Your task to perform on an android device: search for starred emails in the gmail app Image 0: 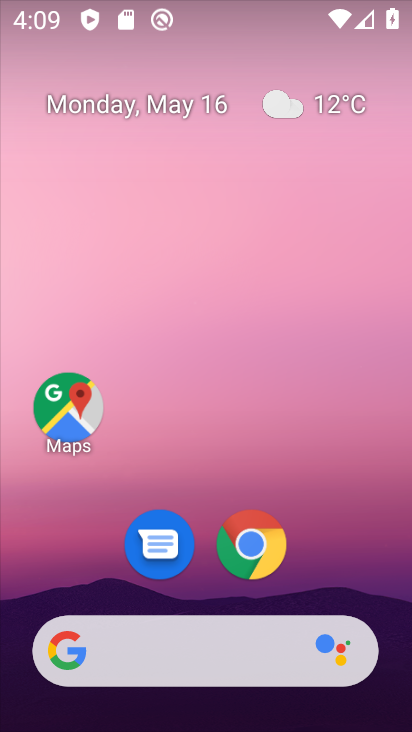
Step 0: drag from (333, 561) to (203, 28)
Your task to perform on an android device: search for starred emails in the gmail app Image 1: 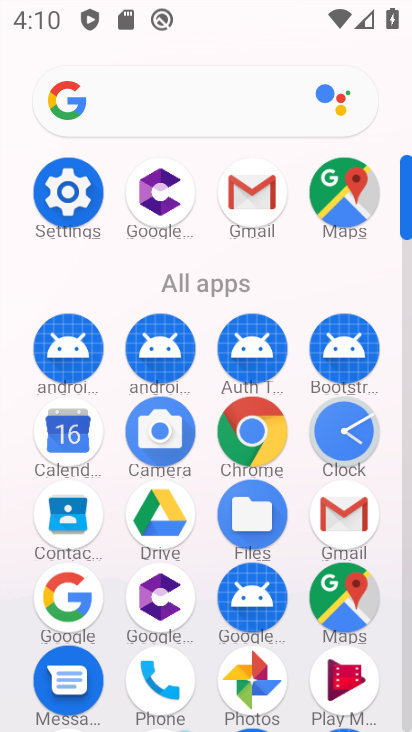
Step 1: click (252, 194)
Your task to perform on an android device: search for starred emails in the gmail app Image 2: 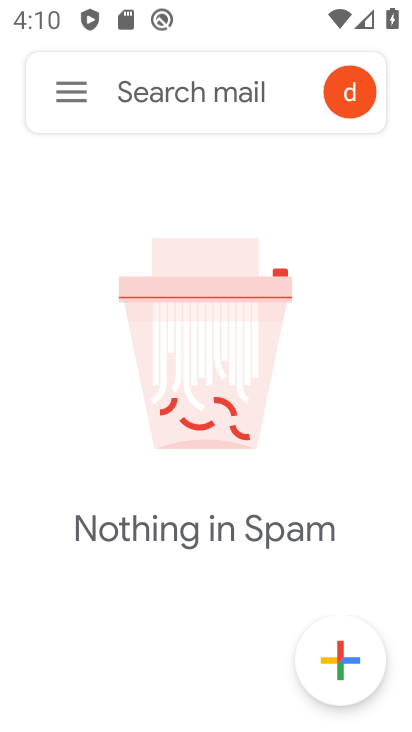
Step 2: click (149, 101)
Your task to perform on an android device: search for starred emails in the gmail app Image 3: 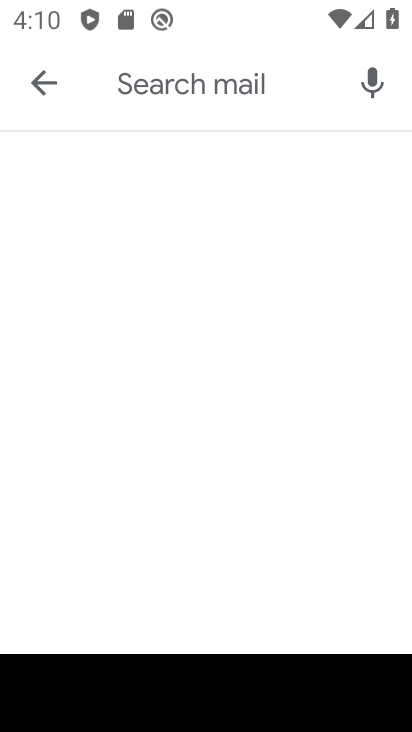
Step 3: type "starred"
Your task to perform on an android device: search for starred emails in the gmail app Image 4: 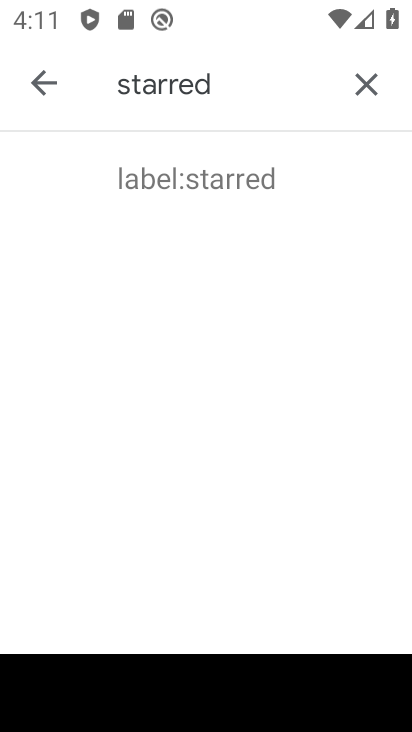
Step 4: click (256, 192)
Your task to perform on an android device: search for starred emails in the gmail app Image 5: 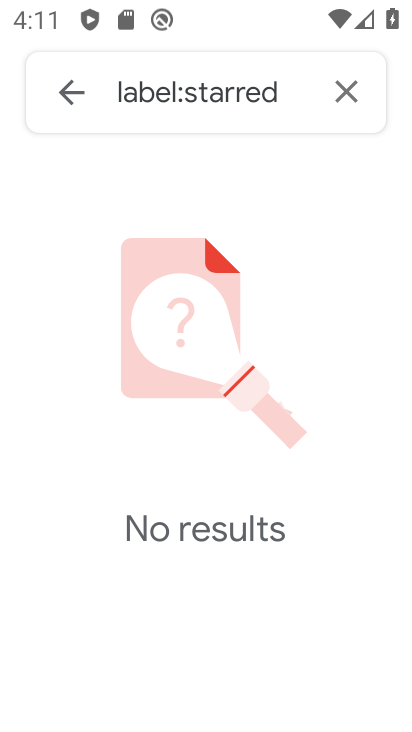
Step 5: task complete